Your task to perform on an android device: turn on bluetooth scan Image 0: 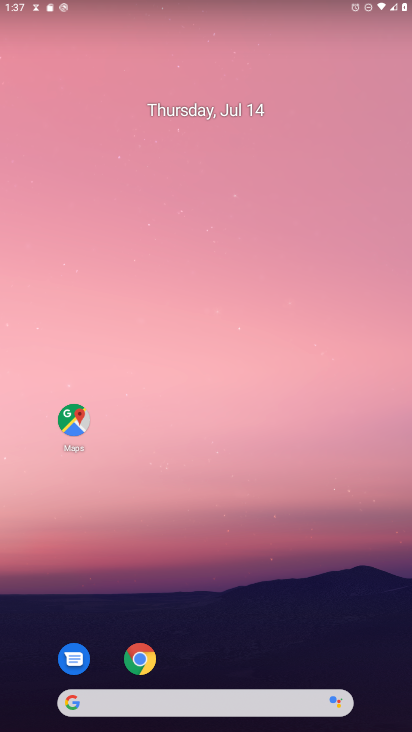
Step 0: drag from (174, 403) to (249, 215)
Your task to perform on an android device: turn on bluetooth scan Image 1: 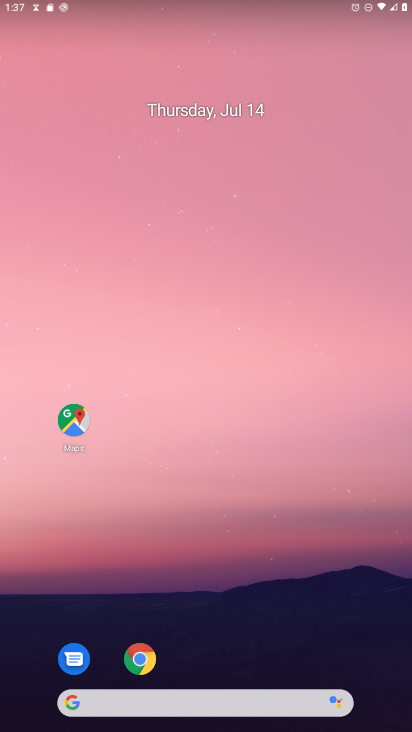
Step 1: drag from (93, 475) to (205, 57)
Your task to perform on an android device: turn on bluetooth scan Image 2: 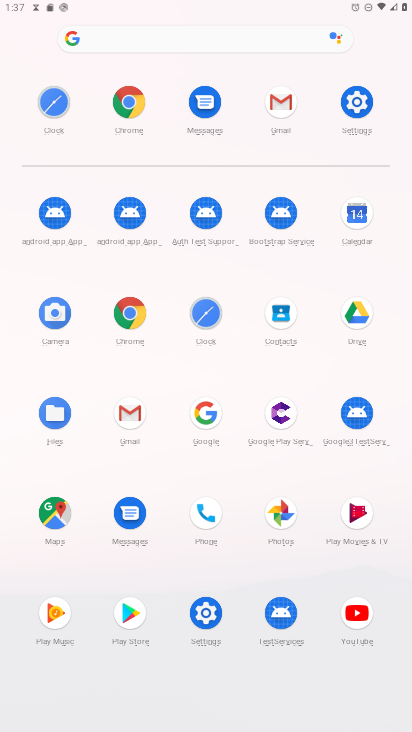
Step 2: click (192, 626)
Your task to perform on an android device: turn on bluetooth scan Image 3: 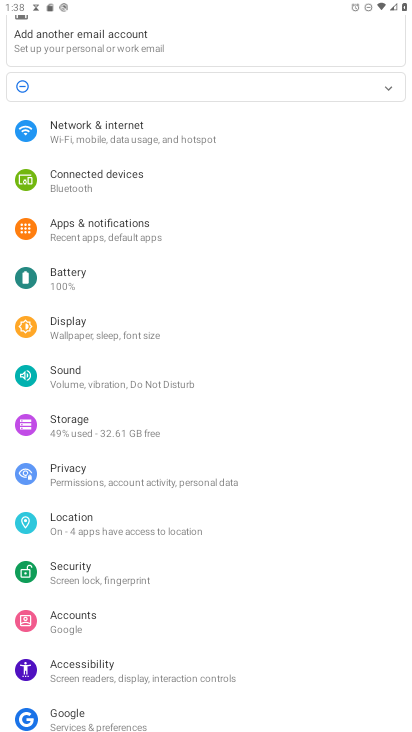
Step 3: click (111, 179)
Your task to perform on an android device: turn on bluetooth scan Image 4: 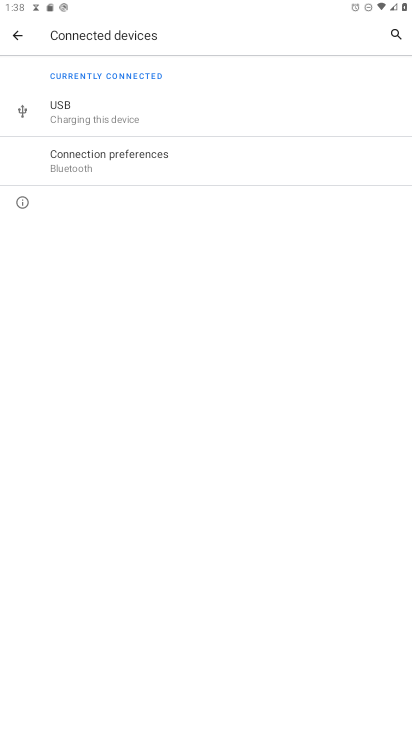
Step 4: click (96, 177)
Your task to perform on an android device: turn on bluetooth scan Image 5: 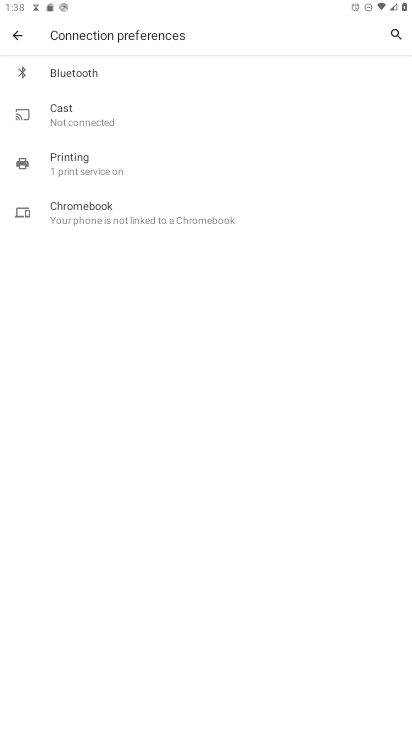
Step 5: click (59, 85)
Your task to perform on an android device: turn on bluetooth scan Image 6: 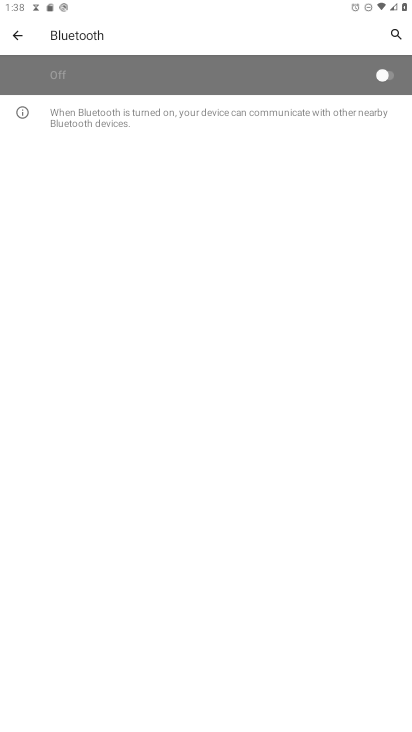
Step 6: task complete